Your task to perform on an android device: Go to Google maps Image 0: 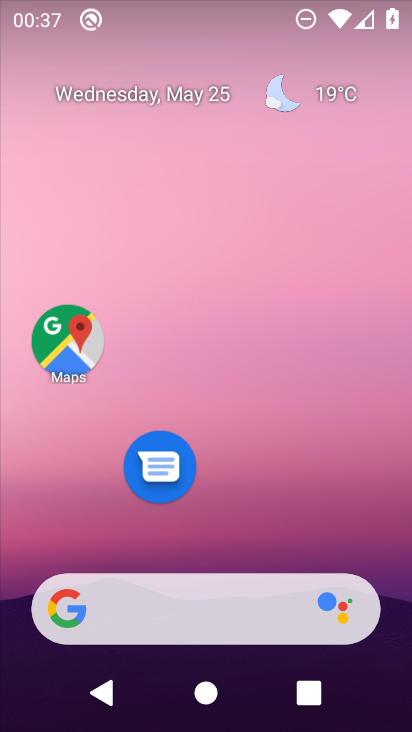
Step 0: drag from (211, 508) to (164, 6)
Your task to perform on an android device: Go to Google maps Image 1: 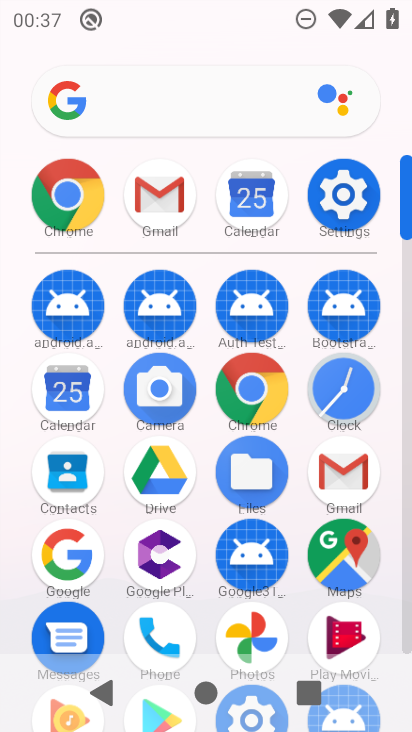
Step 1: click (340, 542)
Your task to perform on an android device: Go to Google maps Image 2: 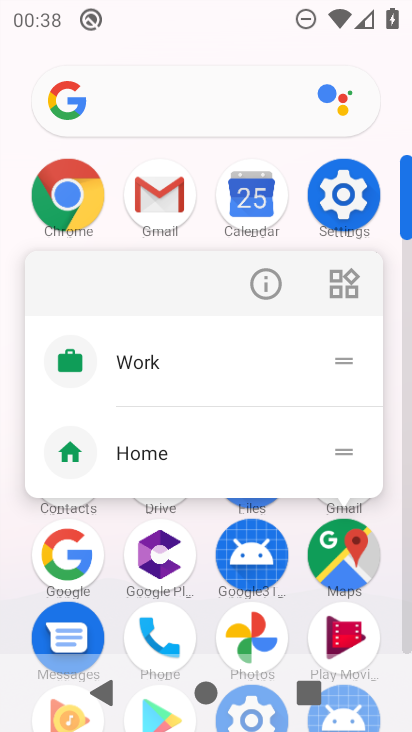
Step 2: click (257, 286)
Your task to perform on an android device: Go to Google maps Image 3: 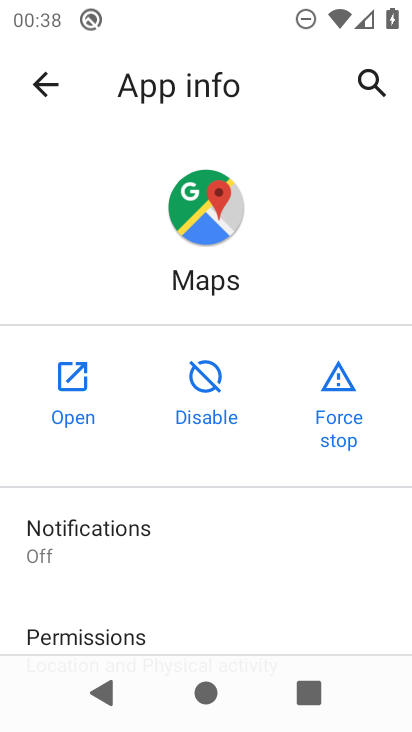
Step 3: click (77, 378)
Your task to perform on an android device: Go to Google maps Image 4: 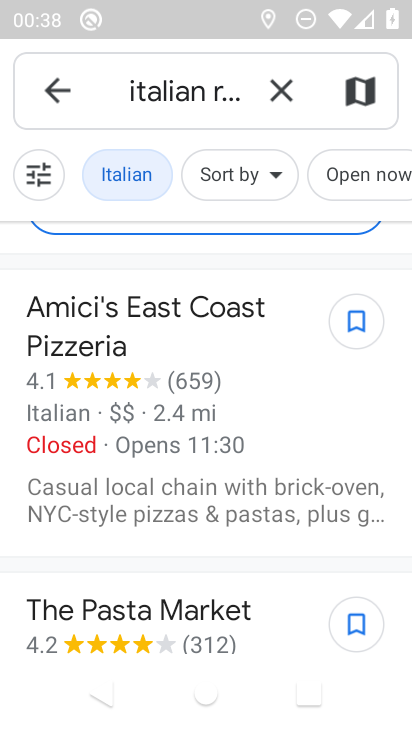
Step 4: task complete